Your task to perform on an android device: Open Android settings Image 0: 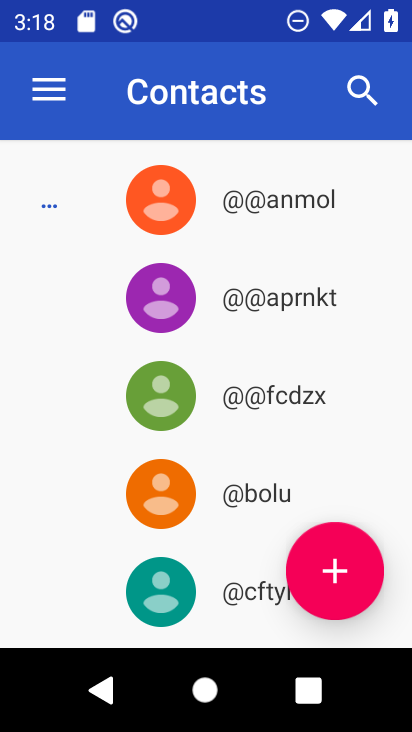
Step 0: press home button
Your task to perform on an android device: Open Android settings Image 1: 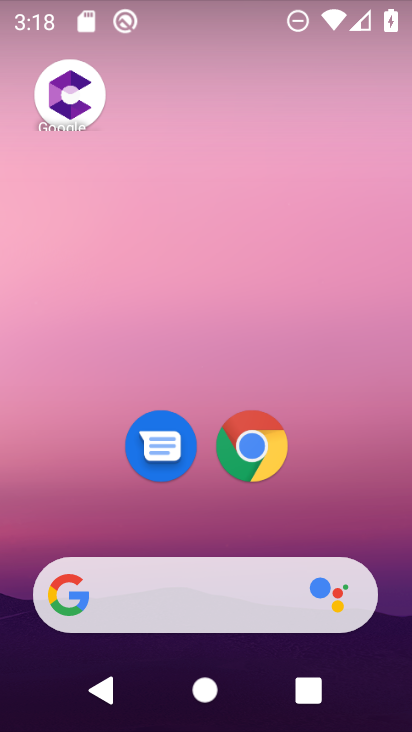
Step 1: drag from (299, 449) to (347, 53)
Your task to perform on an android device: Open Android settings Image 2: 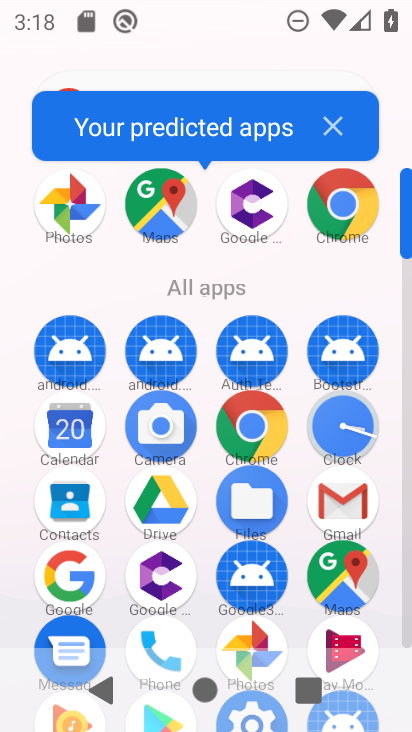
Step 2: drag from (294, 290) to (310, 15)
Your task to perform on an android device: Open Android settings Image 3: 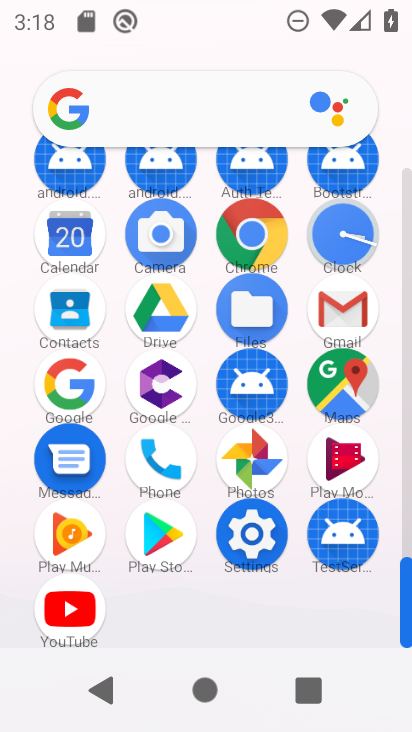
Step 3: click (256, 524)
Your task to perform on an android device: Open Android settings Image 4: 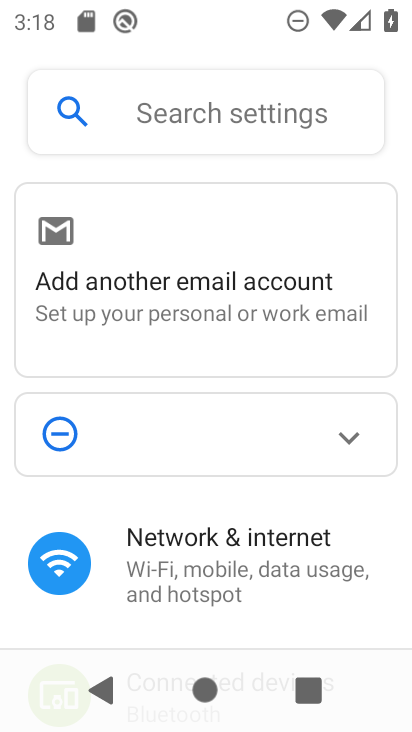
Step 4: drag from (226, 579) to (273, 116)
Your task to perform on an android device: Open Android settings Image 5: 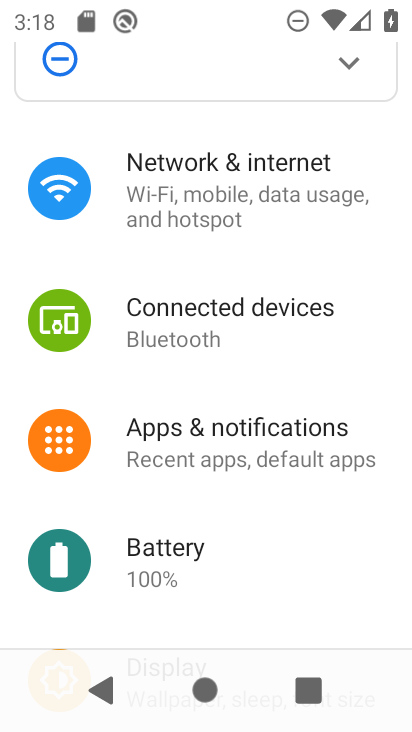
Step 5: drag from (257, 522) to (257, 184)
Your task to perform on an android device: Open Android settings Image 6: 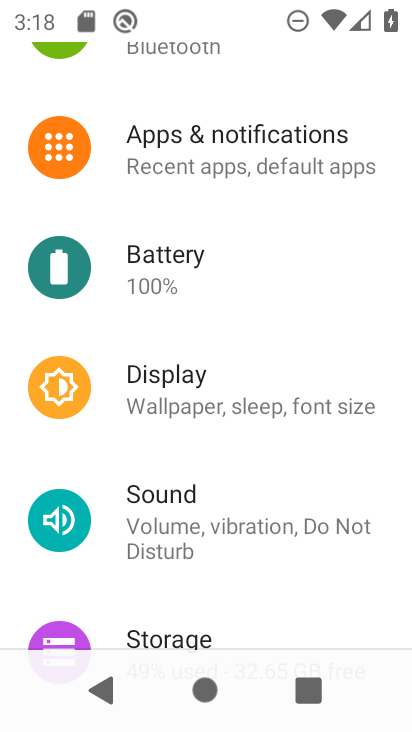
Step 6: drag from (295, 594) to (290, 205)
Your task to perform on an android device: Open Android settings Image 7: 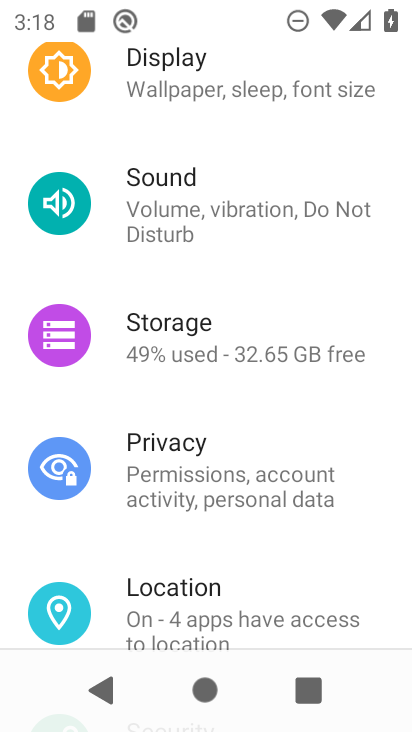
Step 7: drag from (286, 576) to (268, 191)
Your task to perform on an android device: Open Android settings Image 8: 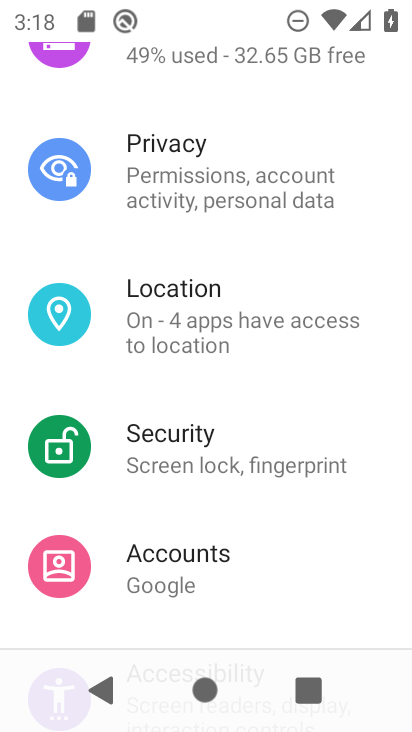
Step 8: drag from (328, 611) to (317, 334)
Your task to perform on an android device: Open Android settings Image 9: 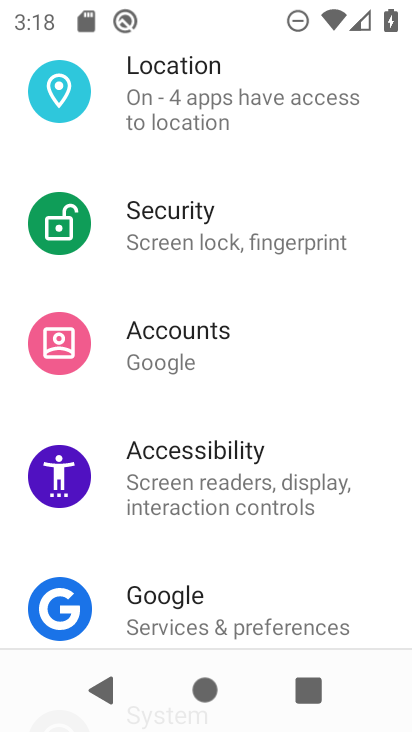
Step 9: drag from (342, 525) to (368, 136)
Your task to perform on an android device: Open Android settings Image 10: 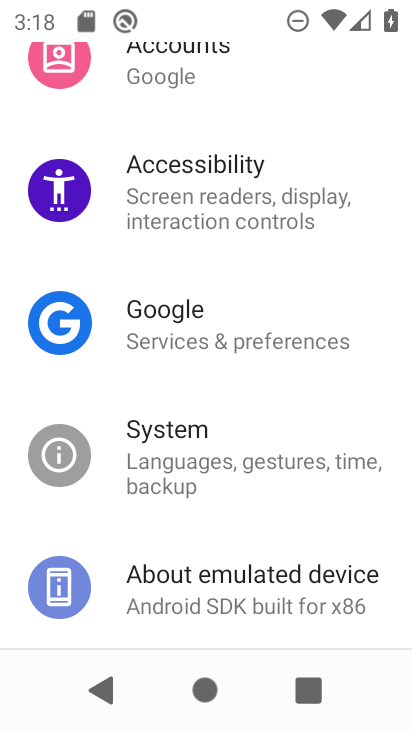
Step 10: click (265, 576)
Your task to perform on an android device: Open Android settings Image 11: 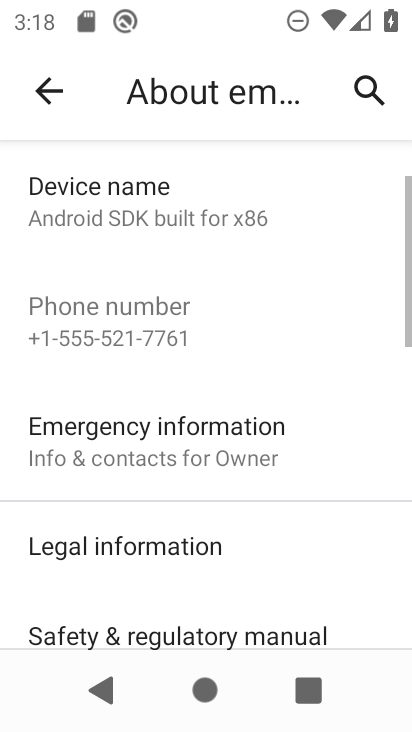
Step 11: drag from (281, 564) to (299, 151)
Your task to perform on an android device: Open Android settings Image 12: 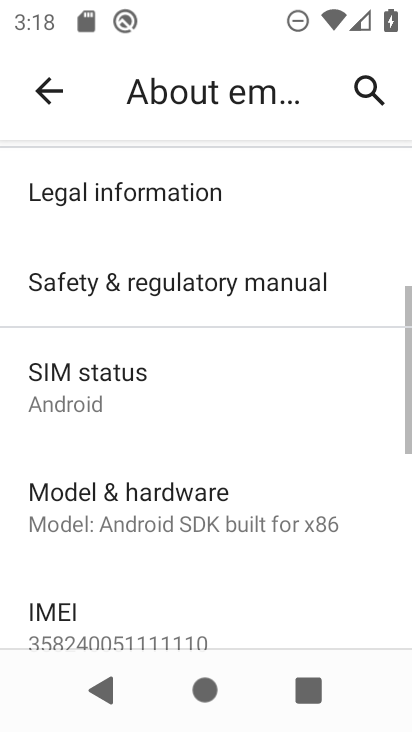
Step 12: drag from (368, 549) to (377, 186)
Your task to perform on an android device: Open Android settings Image 13: 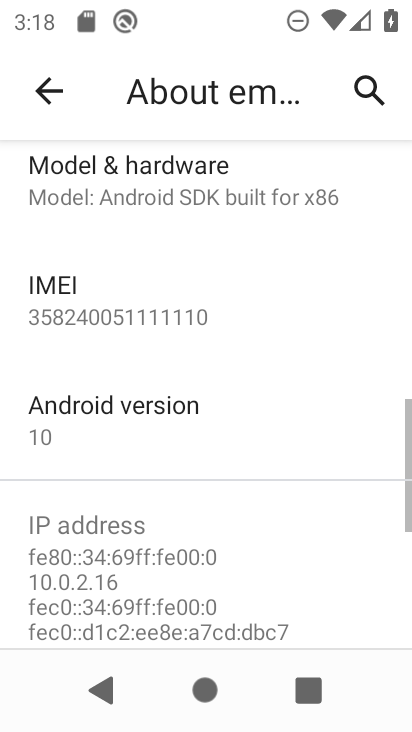
Step 13: click (123, 402)
Your task to perform on an android device: Open Android settings Image 14: 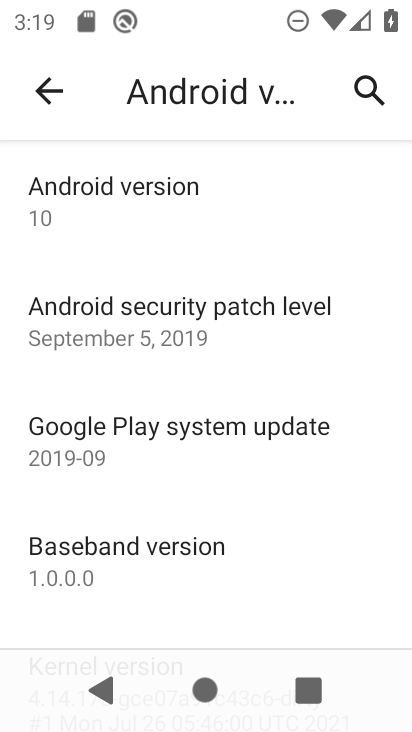
Step 14: task complete